Your task to perform on an android device: Show me the alarms in the clock app Image 0: 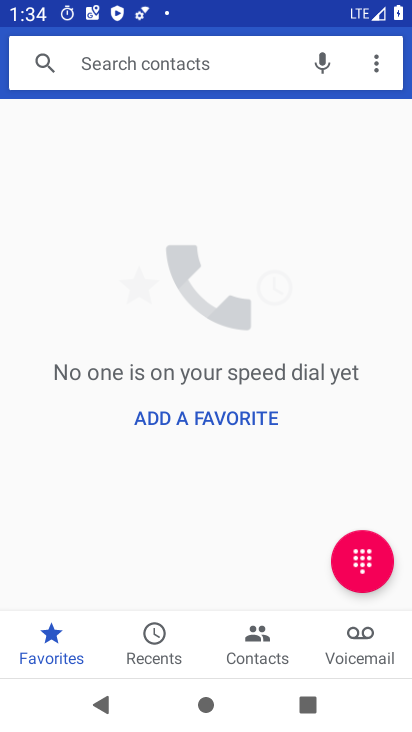
Step 0: press home button
Your task to perform on an android device: Show me the alarms in the clock app Image 1: 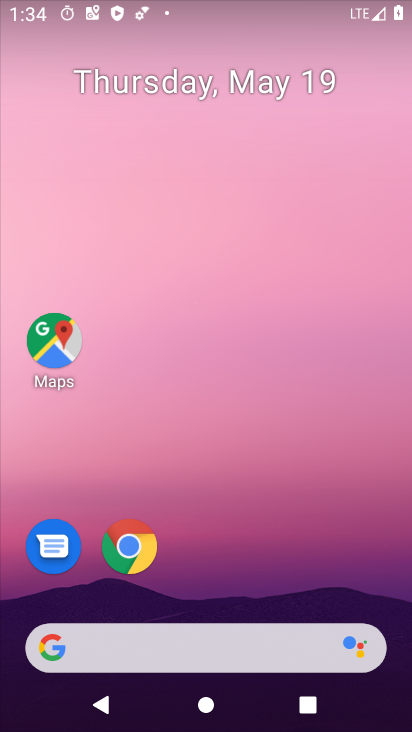
Step 1: drag from (190, 610) to (234, 4)
Your task to perform on an android device: Show me the alarms in the clock app Image 2: 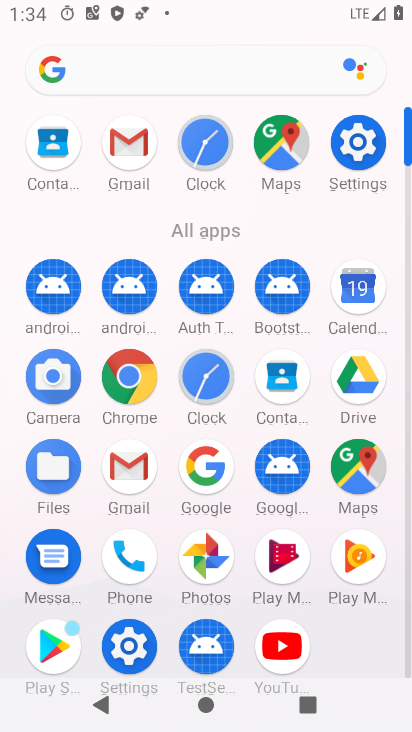
Step 2: click (200, 117)
Your task to perform on an android device: Show me the alarms in the clock app Image 3: 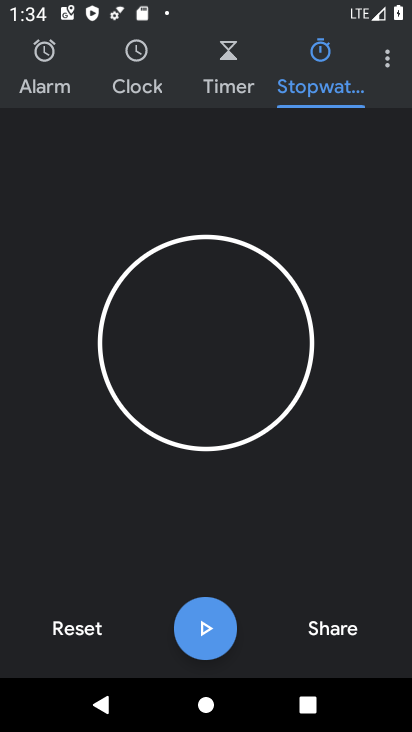
Step 3: click (63, 81)
Your task to perform on an android device: Show me the alarms in the clock app Image 4: 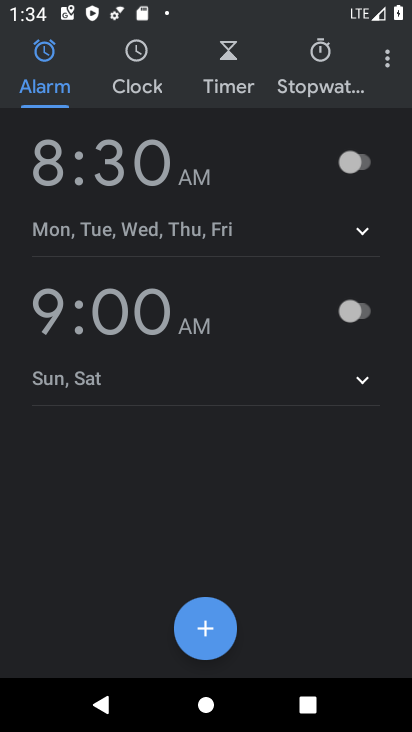
Step 4: task complete